Your task to perform on an android device: toggle pop-ups in chrome Image 0: 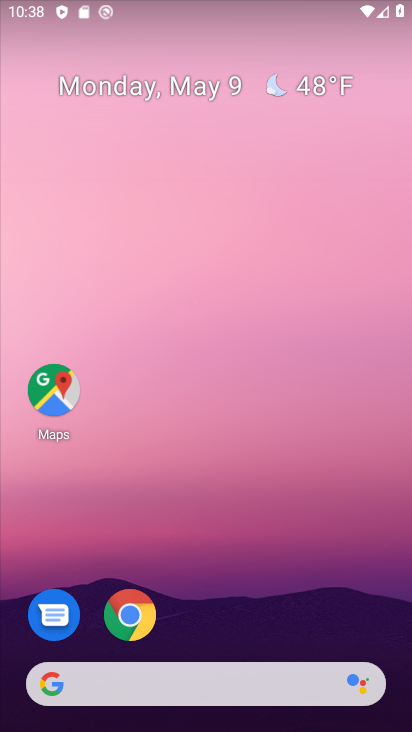
Step 0: click (132, 630)
Your task to perform on an android device: toggle pop-ups in chrome Image 1: 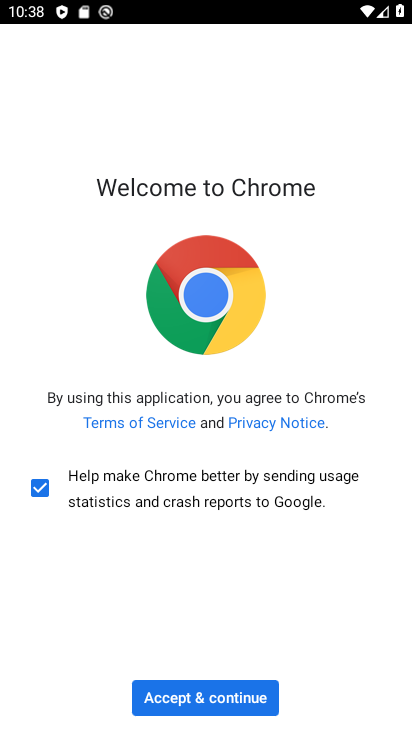
Step 1: click (224, 694)
Your task to perform on an android device: toggle pop-ups in chrome Image 2: 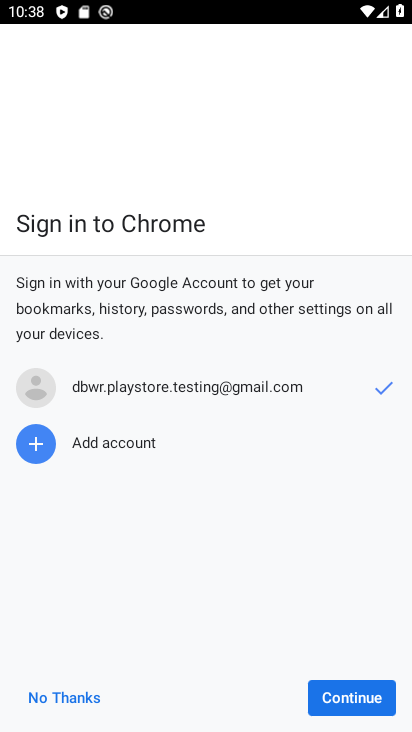
Step 2: click (377, 690)
Your task to perform on an android device: toggle pop-ups in chrome Image 3: 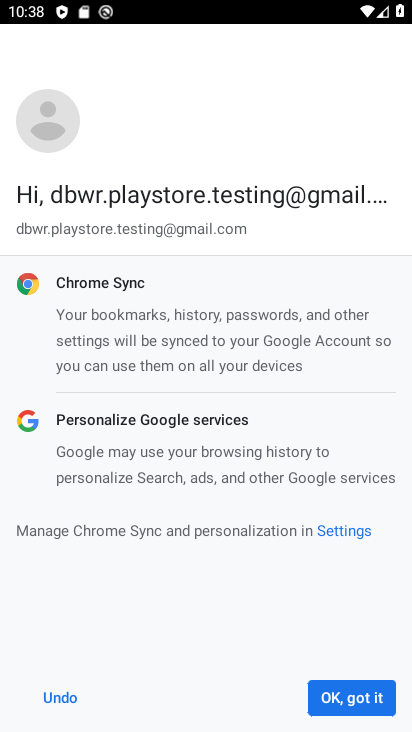
Step 3: click (377, 690)
Your task to perform on an android device: toggle pop-ups in chrome Image 4: 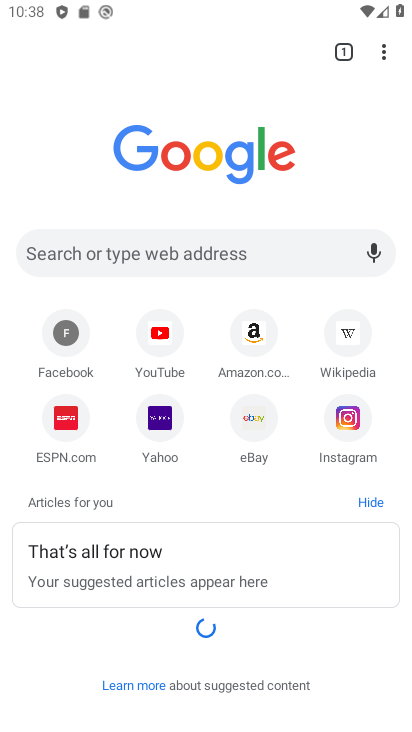
Step 4: click (383, 45)
Your task to perform on an android device: toggle pop-ups in chrome Image 5: 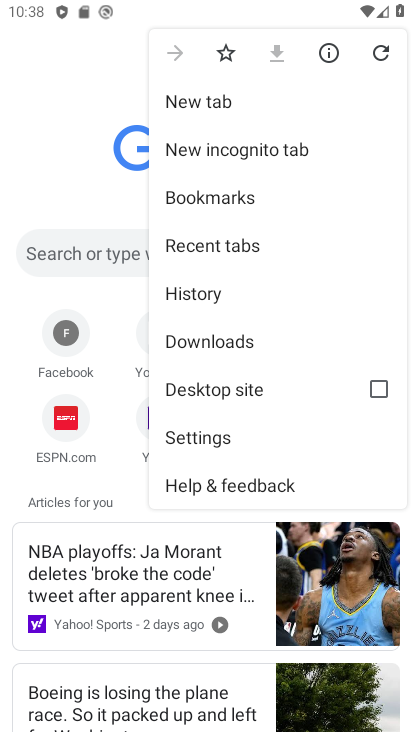
Step 5: click (224, 430)
Your task to perform on an android device: toggle pop-ups in chrome Image 6: 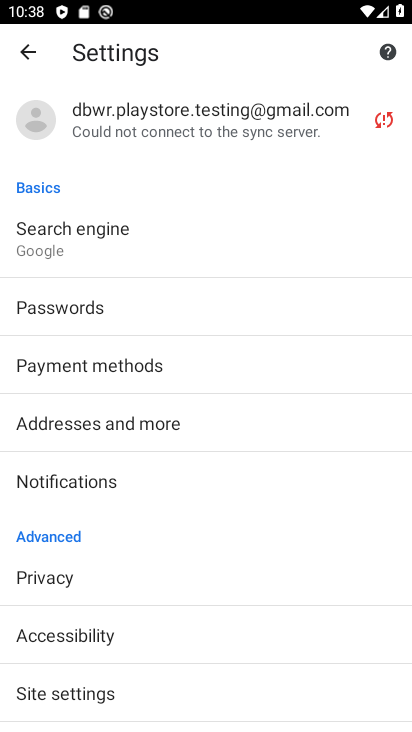
Step 6: drag from (130, 672) to (164, 288)
Your task to perform on an android device: toggle pop-ups in chrome Image 7: 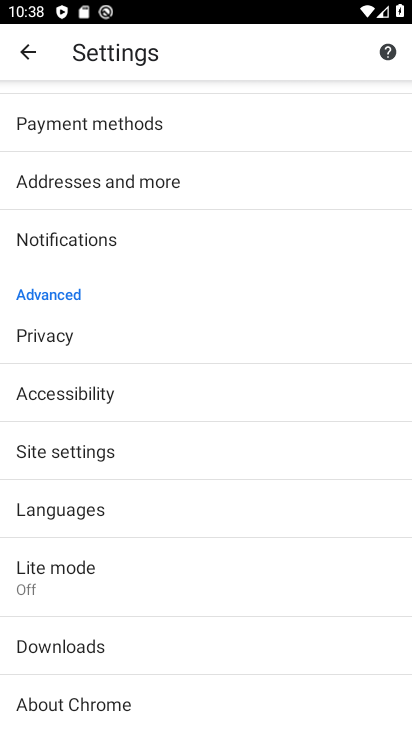
Step 7: click (173, 433)
Your task to perform on an android device: toggle pop-ups in chrome Image 8: 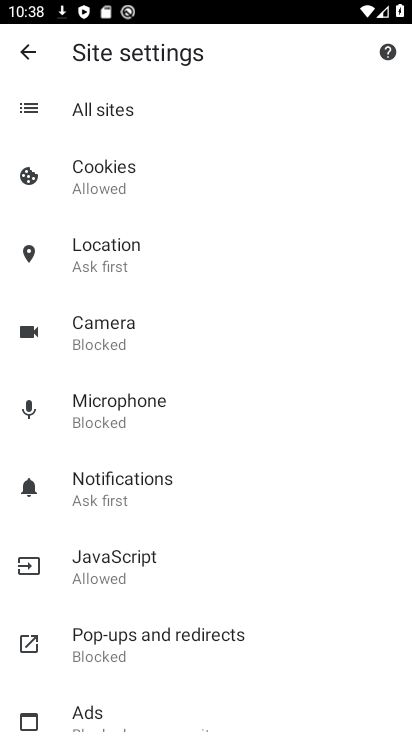
Step 8: click (155, 646)
Your task to perform on an android device: toggle pop-ups in chrome Image 9: 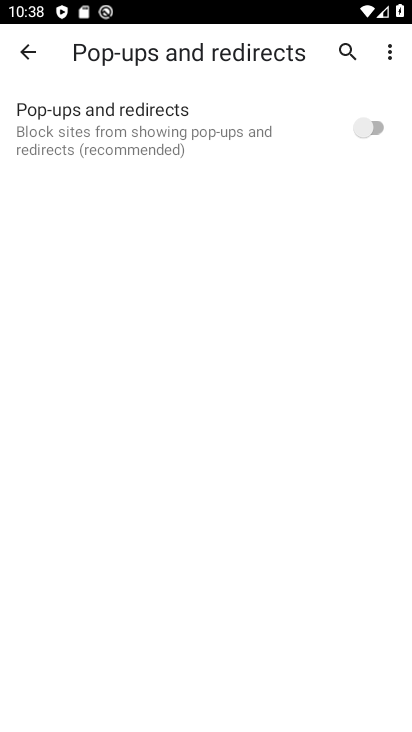
Step 9: click (375, 130)
Your task to perform on an android device: toggle pop-ups in chrome Image 10: 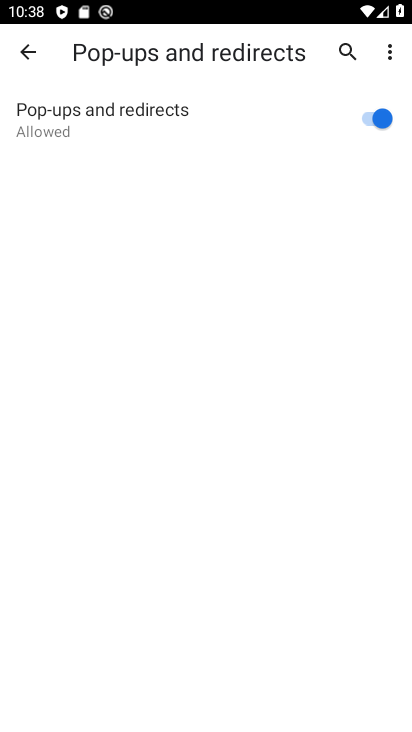
Step 10: task complete